Your task to perform on an android device: Search for sushi restaurants on Maps Image 0: 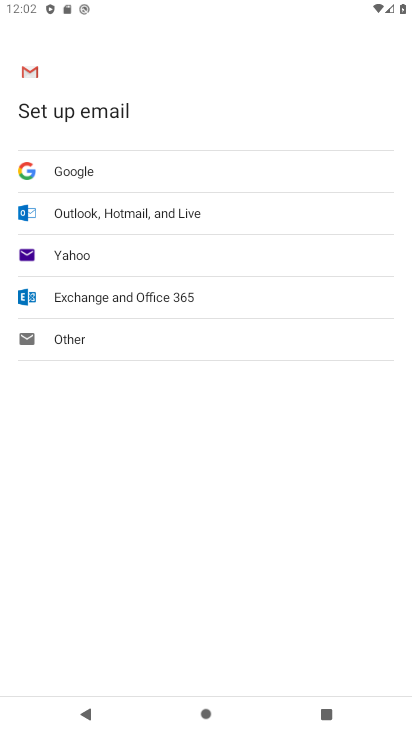
Step 0: press home button
Your task to perform on an android device: Search for sushi restaurants on Maps Image 1: 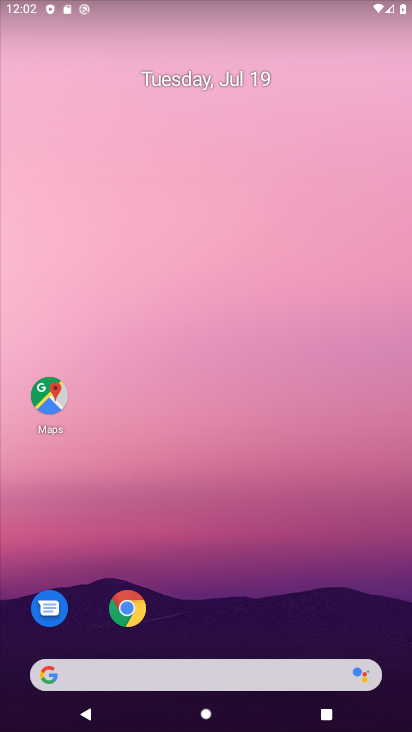
Step 1: drag from (263, 648) to (336, 193)
Your task to perform on an android device: Search for sushi restaurants on Maps Image 2: 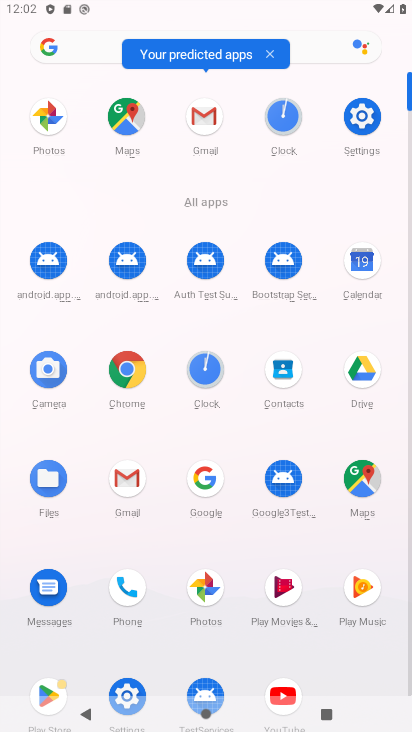
Step 2: click (358, 498)
Your task to perform on an android device: Search for sushi restaurants on Maps Image 3: 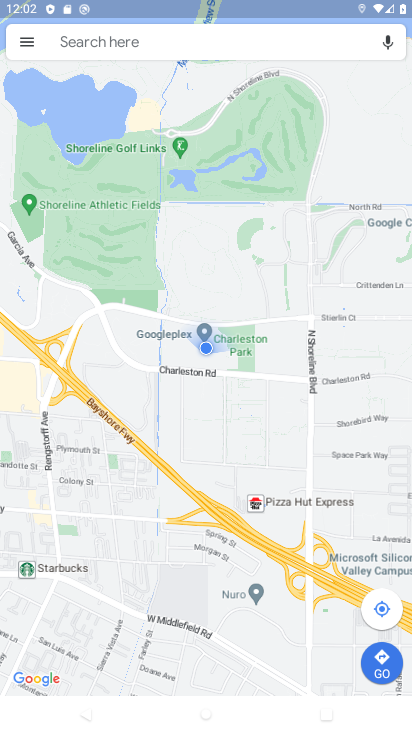
Step 3: click (112, 37)
Your task to perform on an android device: Search for sushi restaurants on Maps Image 4: 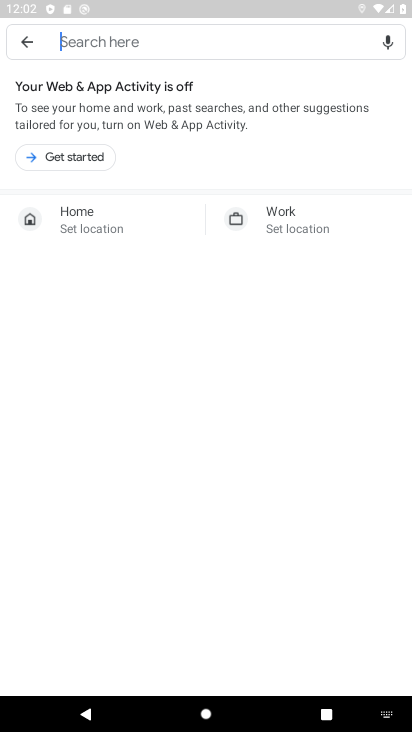
Step 4: type " sushi restaurants "
Your task to perform on an android device: Search for sushi restaurants on Maps Image 5: 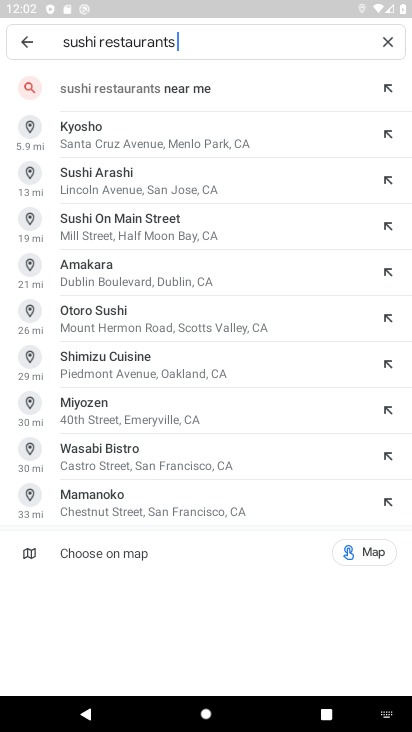
Step 5: press enter
Your task to perform on an android device: Search for sushi restaurants on Maps Image 6: 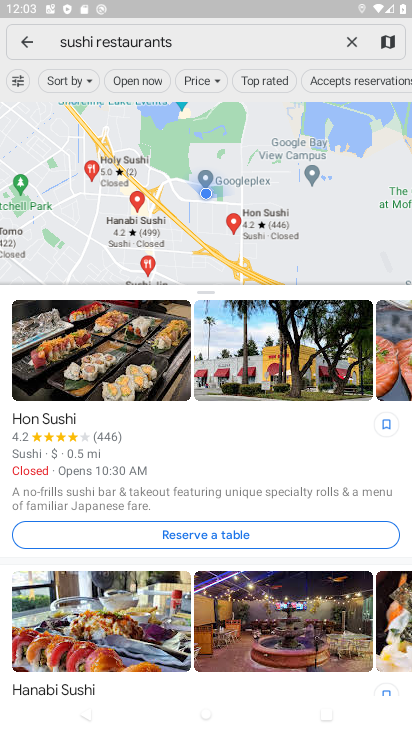
Step 6: task complete